Your task to perform on an android device: Go to internet settings Image 0: 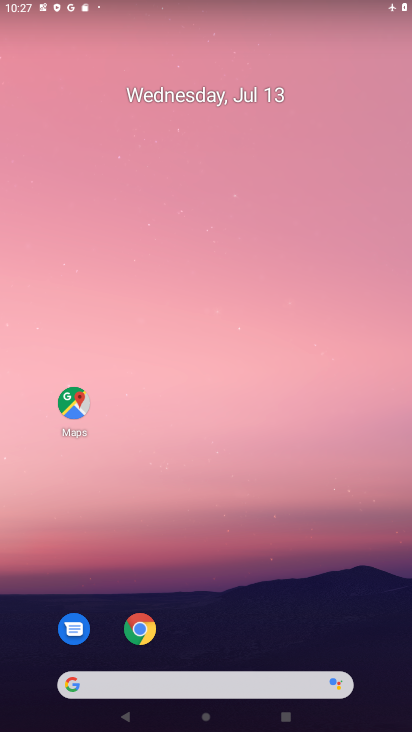
Step 0: drag from (271, 621) to (271, 158)
Your task to perform on an android device: Go to internet settings Image 1: 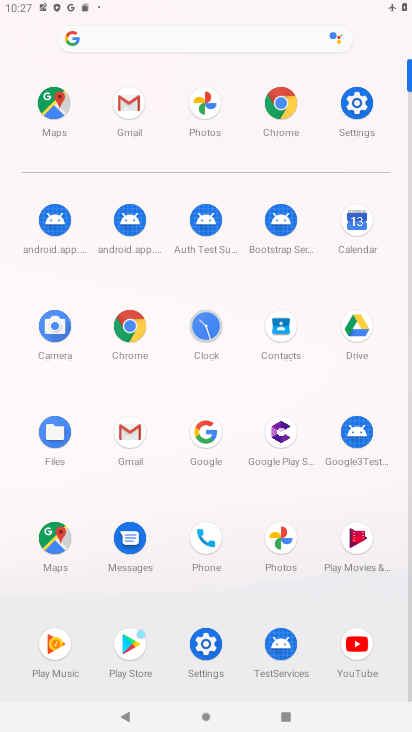
Step 1: click (198, 658)
Your task to perform on an android device: Go to internet settings Image 2: 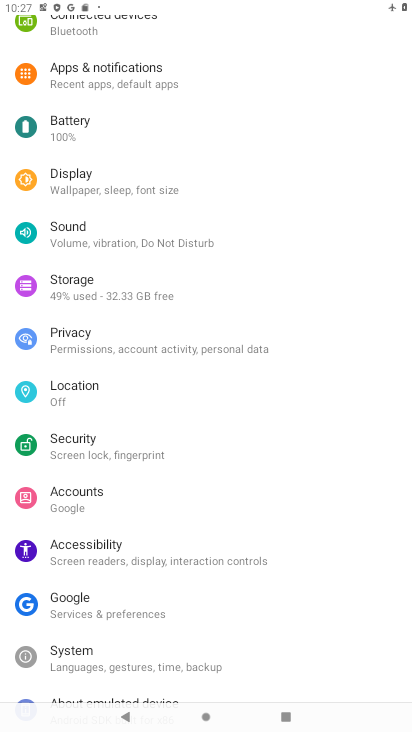
Step 2: drag from (194, 110) to (267, 467)
Your task to perform on an android device: Go to internet settings Image 3: 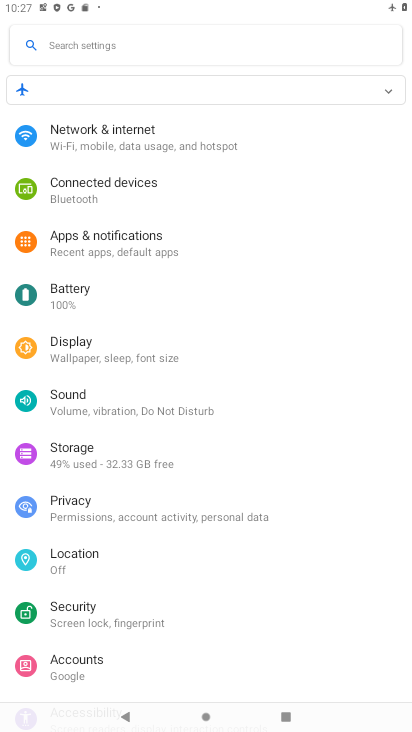
Step 3: click (214, 159)
Your task to perform on an android device: Go to internet settings Image 4: 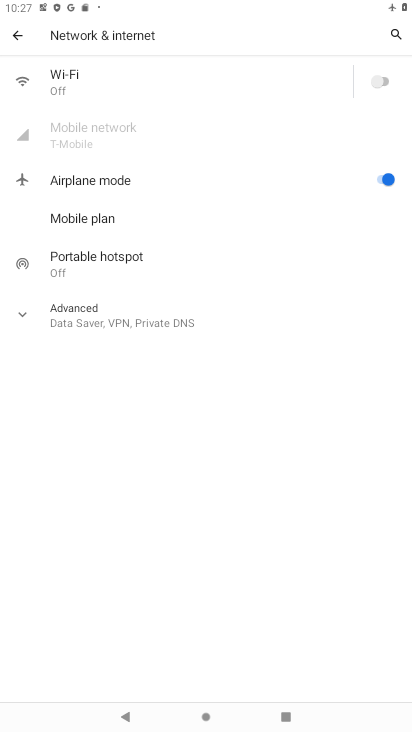
Step 4: task complete